Your task to perform on an android device: What's the price of the Sony TV? Image 0: 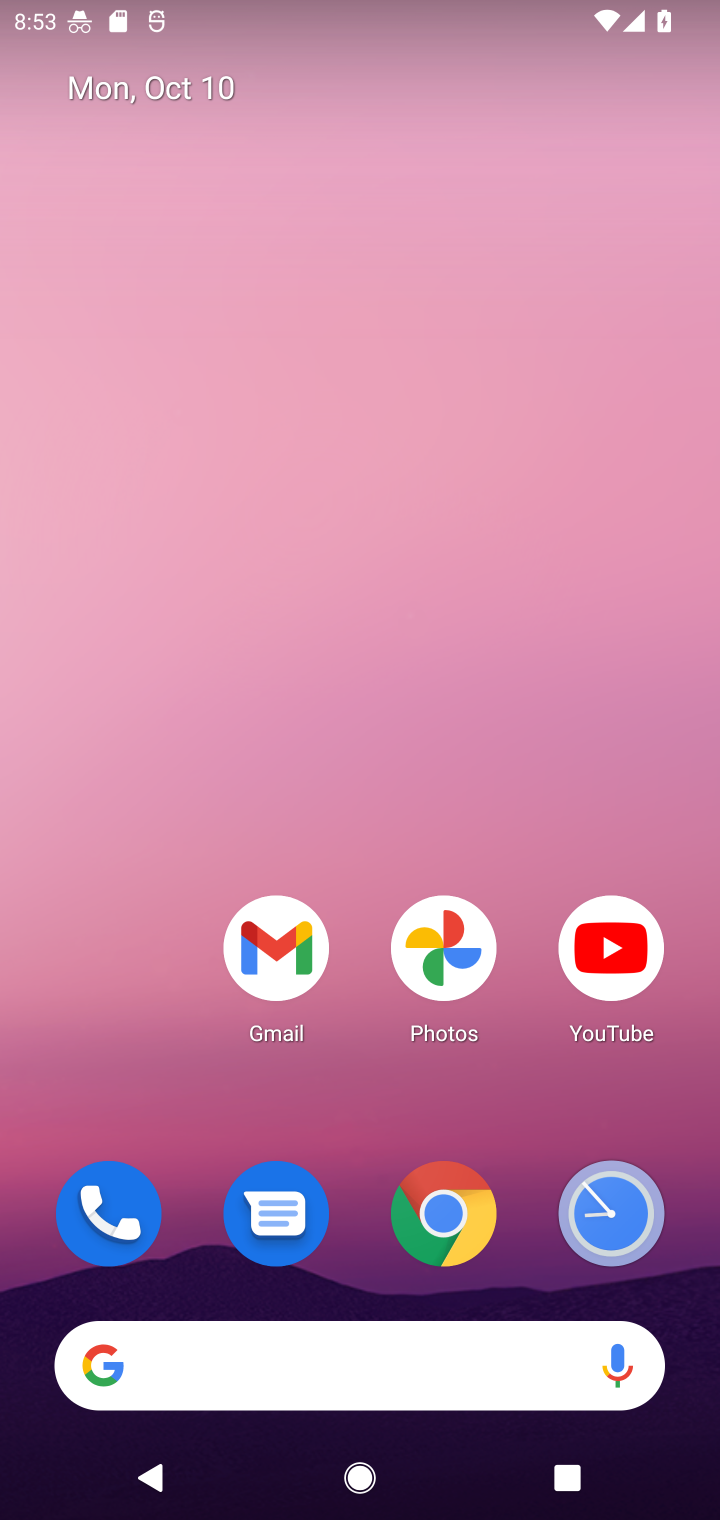
Step 0: click (276, 1380)
Your task to perform on an android device: What's the price of the Sony TV? Image 1: 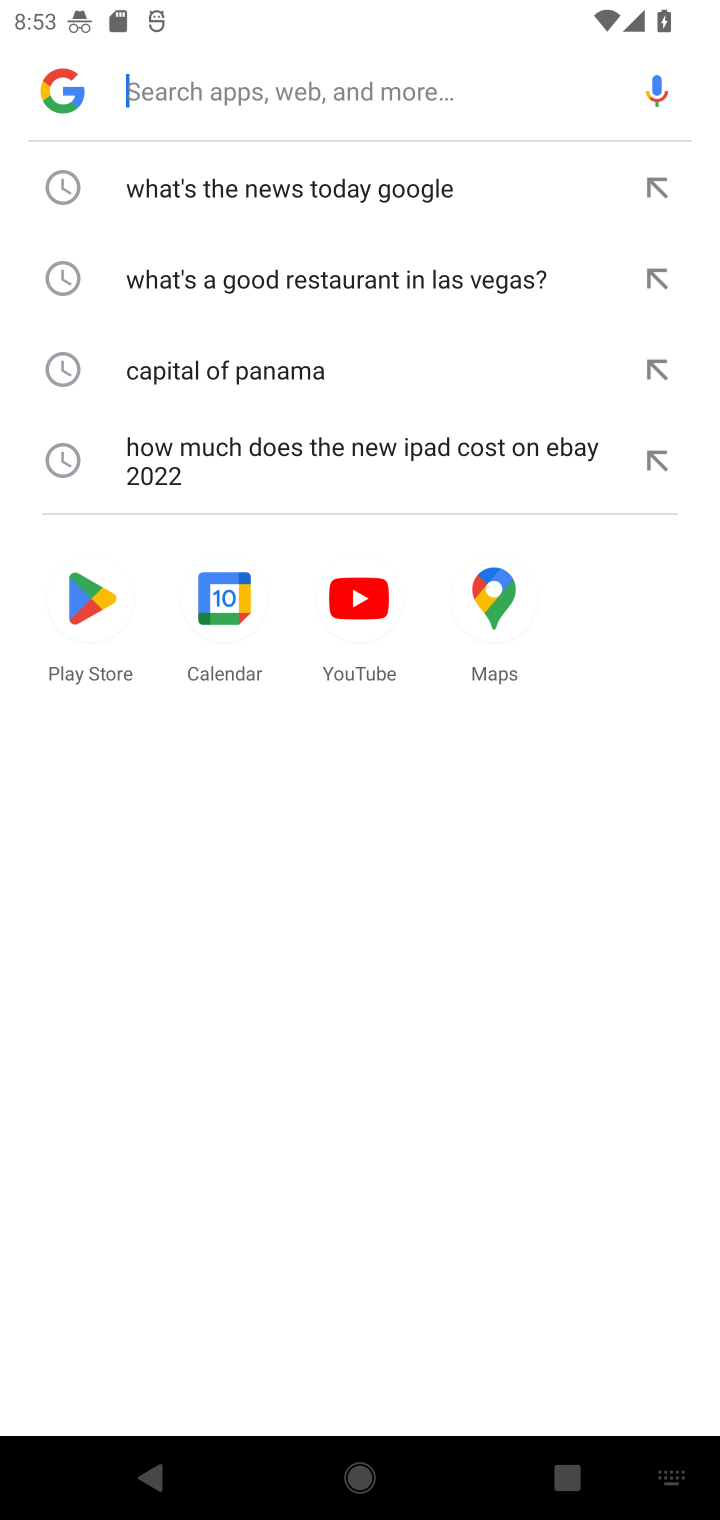
Step 1: click (172, 85)
Your task to perform on an android device: What's the price of the Sony TV? Image 2: 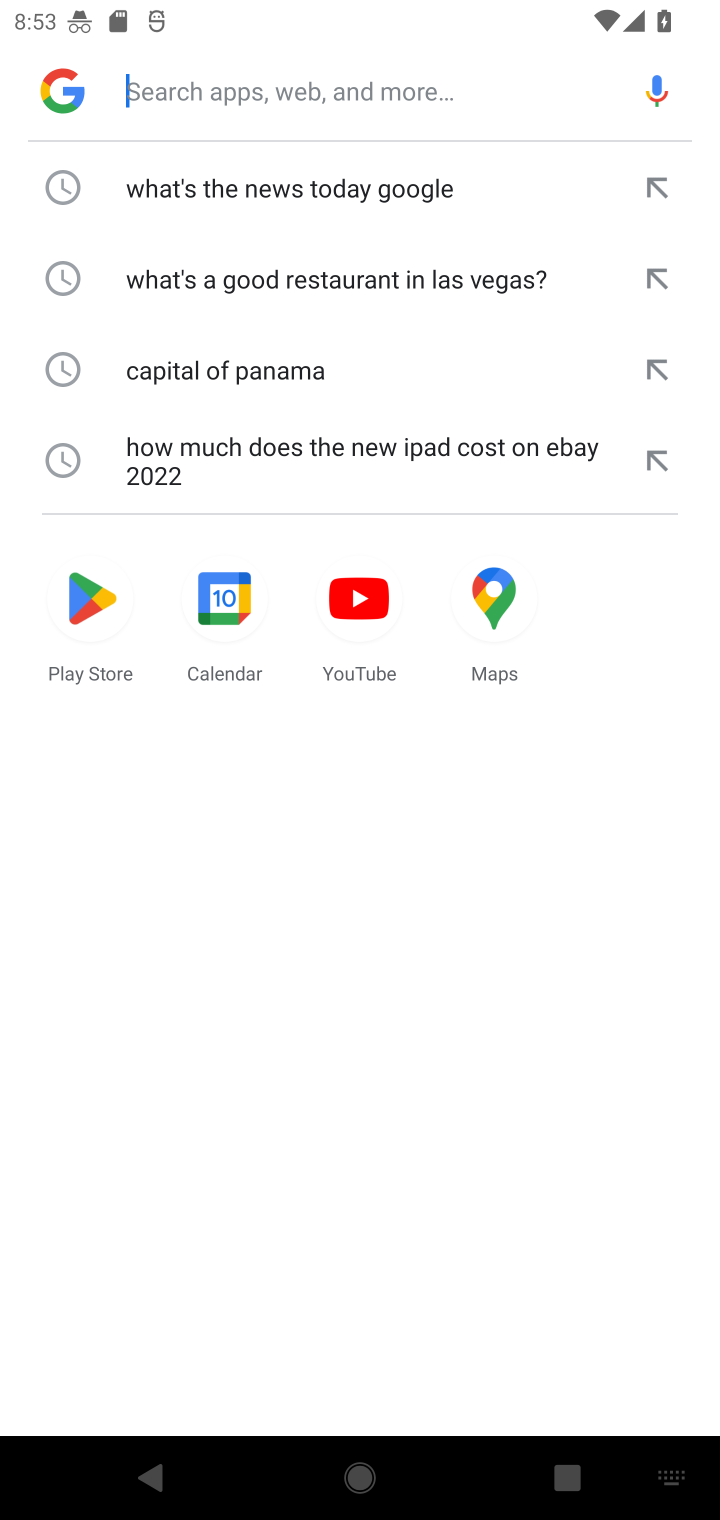
Step 2: type "What's the price of the Sony TV?"
Your task to perform on an android device: What's the price of the Sony TV? Image 3: 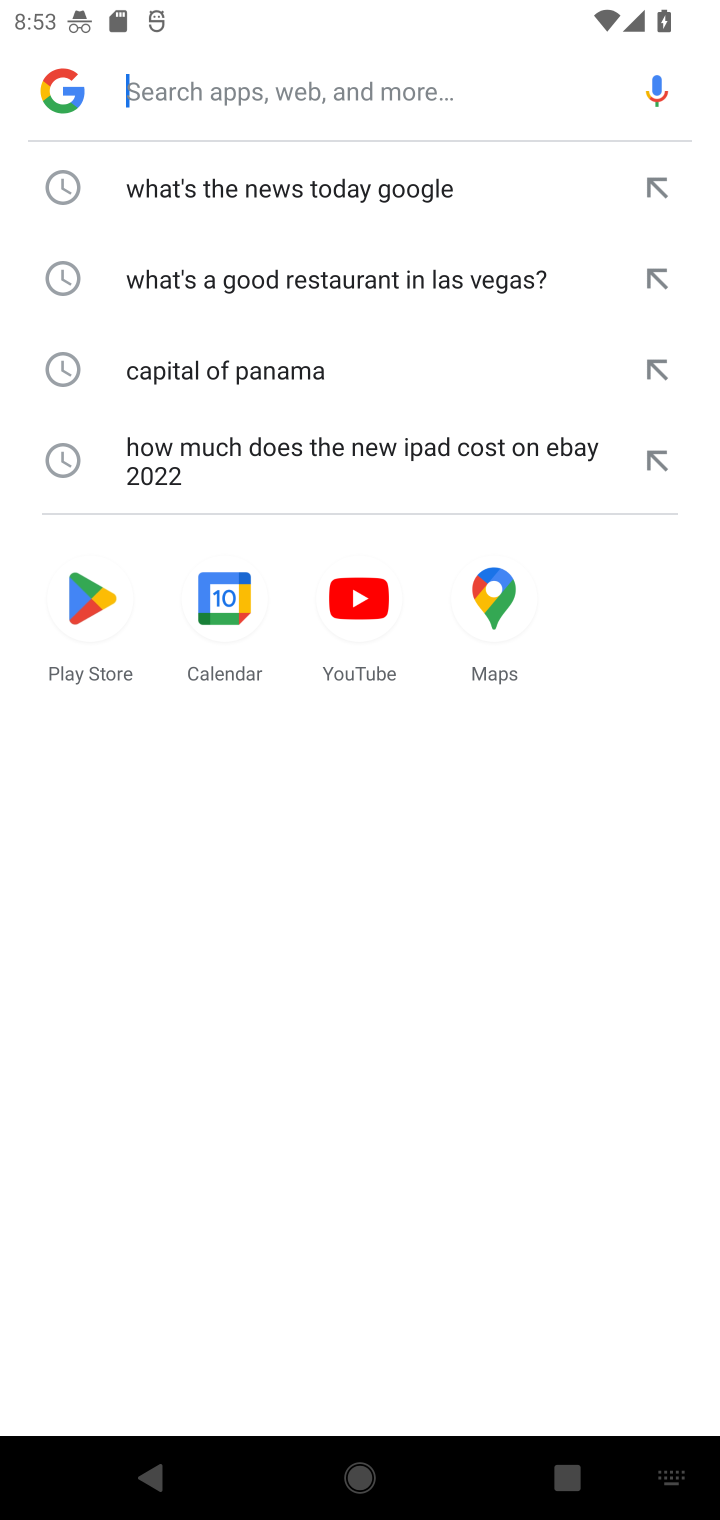
Step 3: click (335, 1184)
Your task to perform on an android device: What's the price of the Sony TV? Image 4: 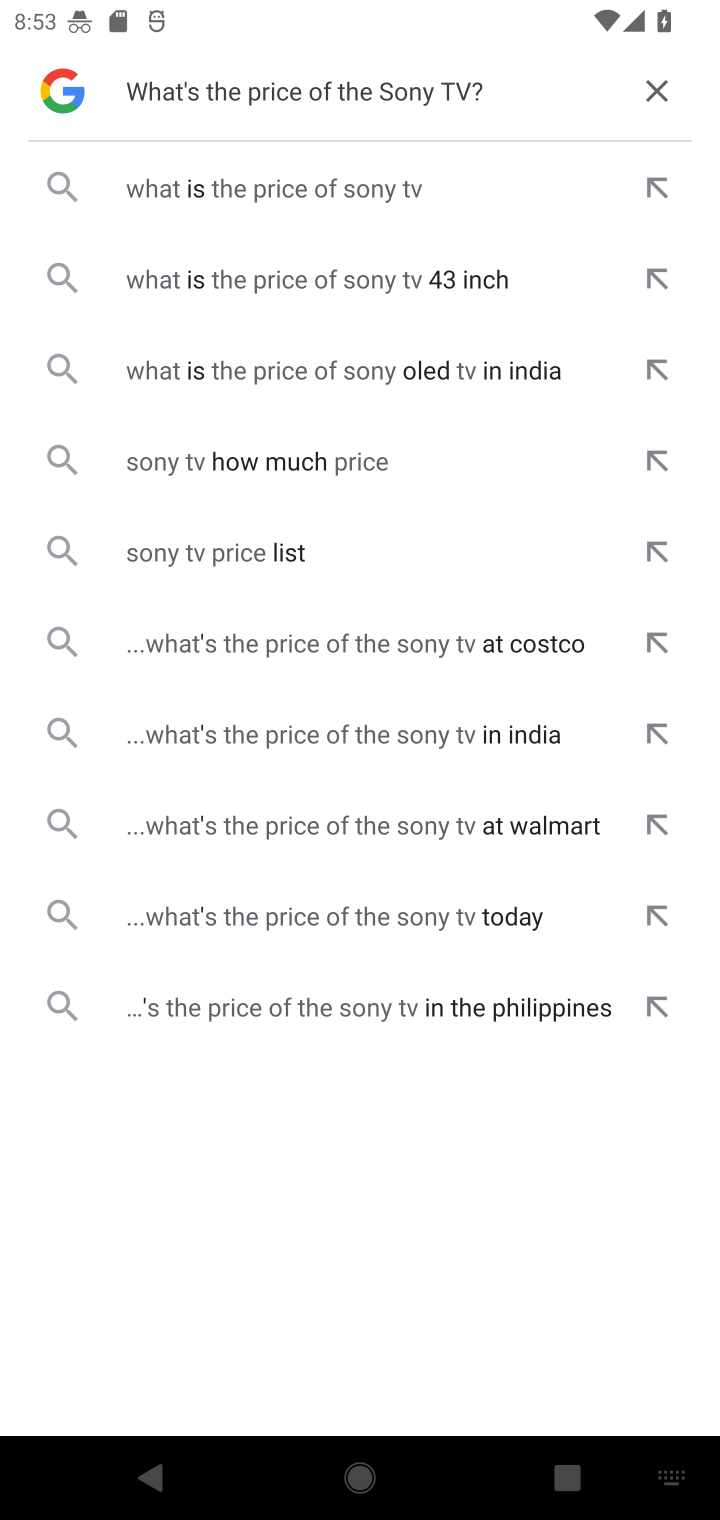
Step 4: click (289, 185)
Your task to perform on an android device: What's the price of the Sony TV? Image 5: 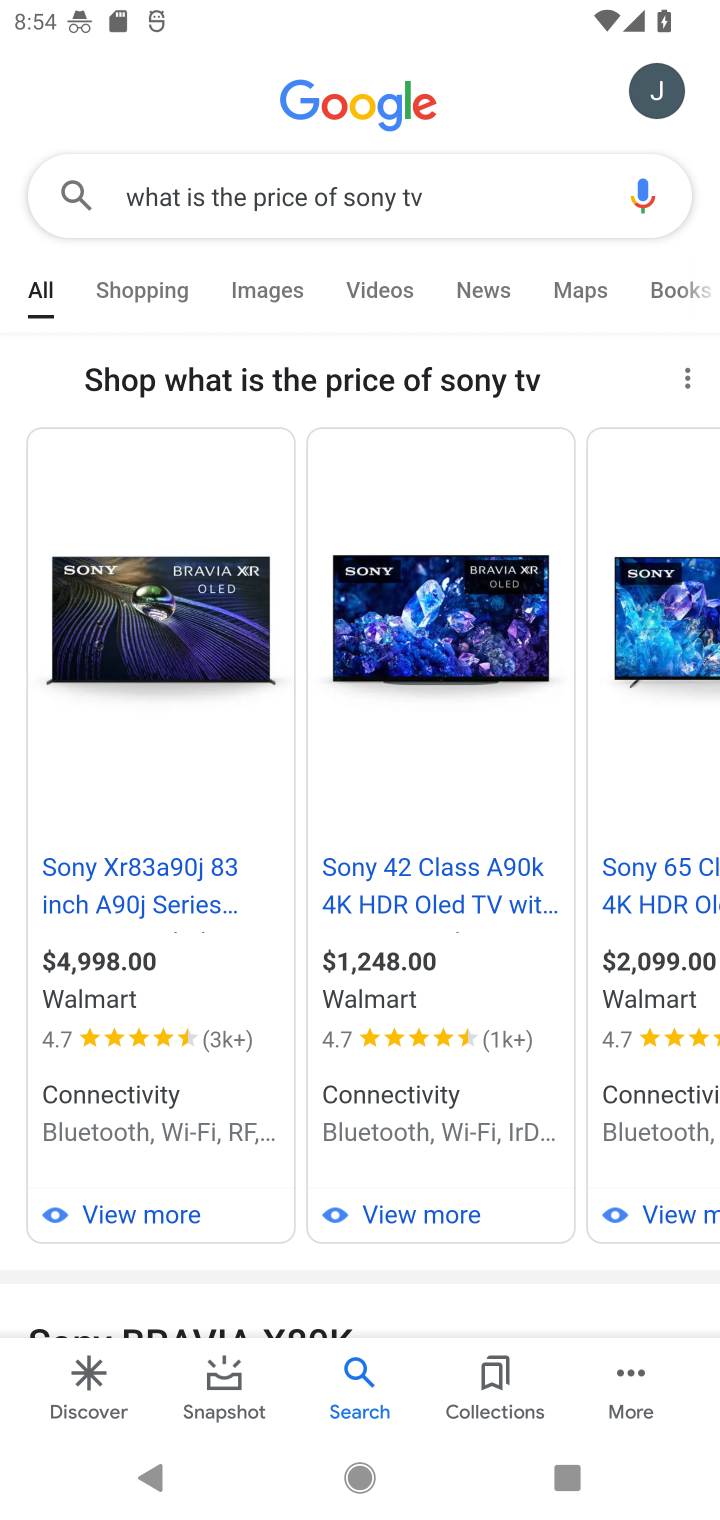
Step 5: task complete